Your task to perform on an android device: Check the news Image 0: 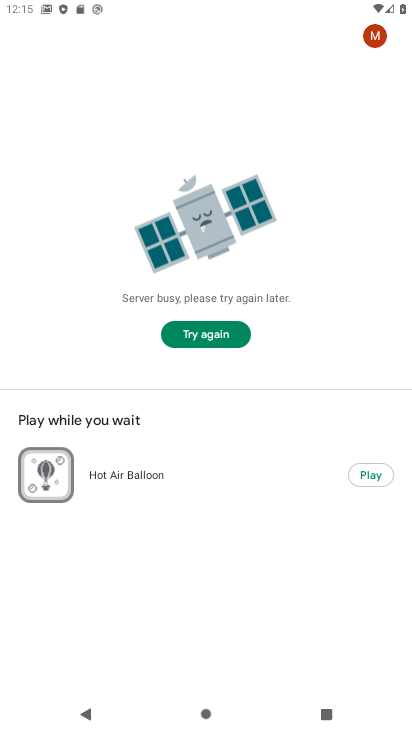
Step 0: press home button
Your task to perform on an android device: Check the news Image 1: 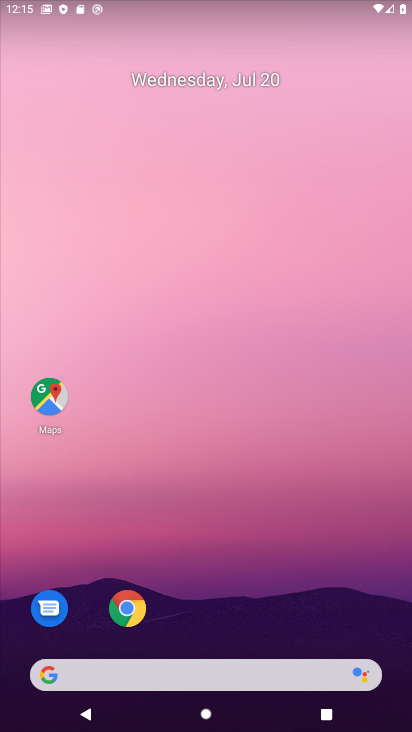
Step 1: drag from (180, 643) to (165, 229)
Your task to perform on an android device: Check the news Image 2: 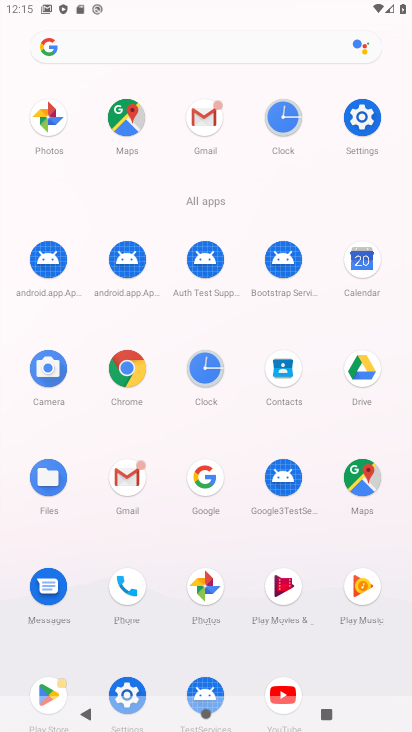
Step 2: click (199, 481)
Your task to perform on an android device: Check the news Image 3: 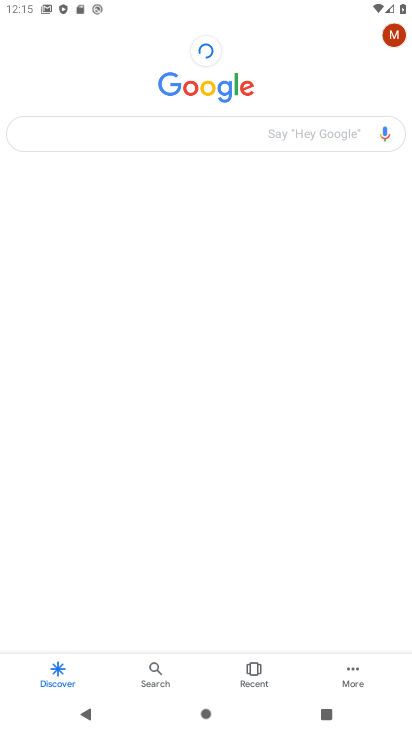
Step 3: click (95, 132)
Your task to perform on an android device: Check the news Image 4: 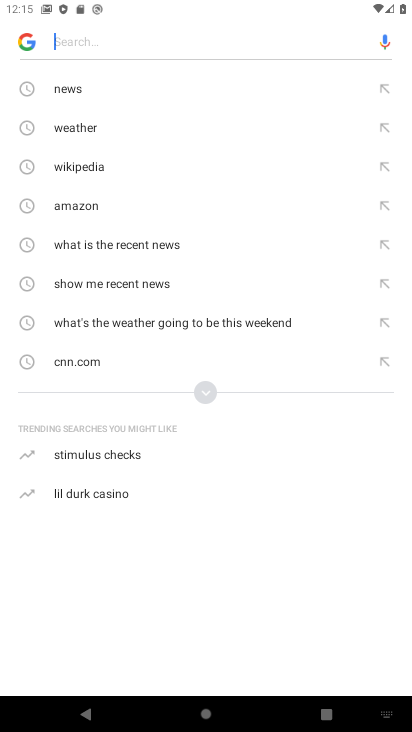
Step 4: click (65, 87)
Your task to perform on an android device: Check the news Image 5: 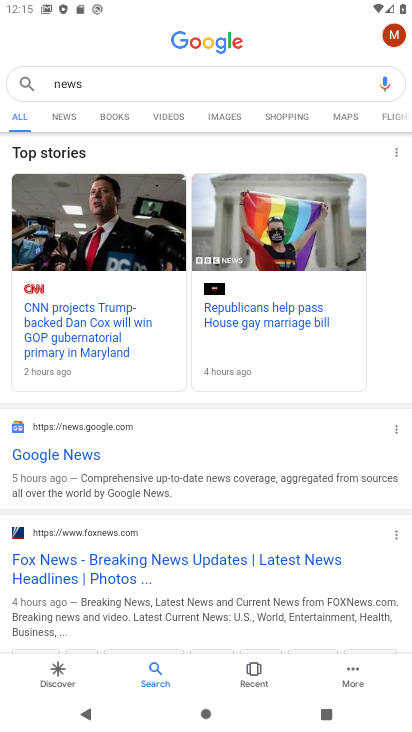
Step 5: drag from (199, 593) to (191, 192)
Your task to perform on an android device: Check the news Image 6: 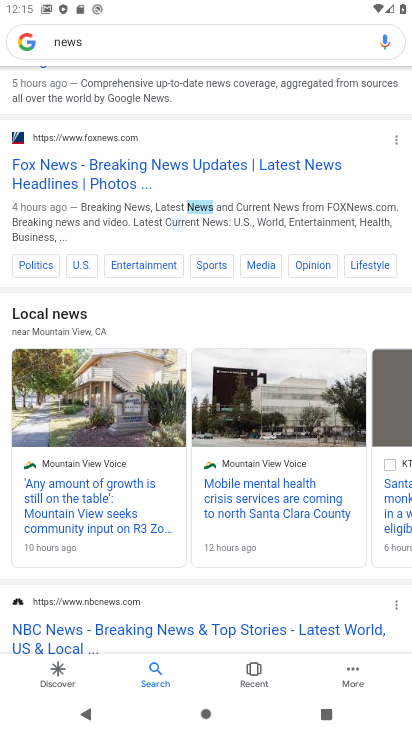
Step 6: click (71, 465)
Your task to perform on an android device: Check the news Image 7: 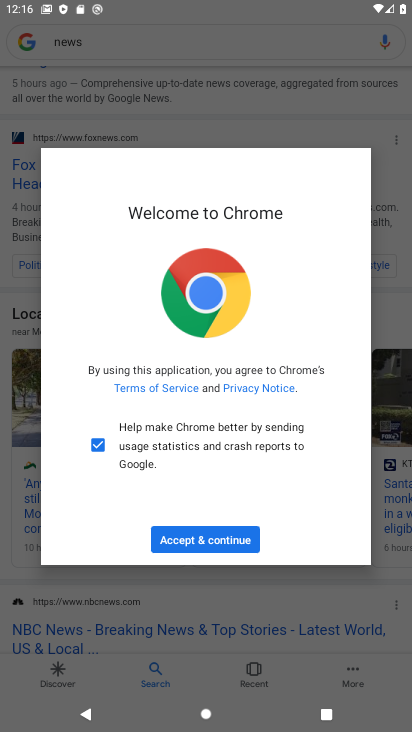
Step 7: task complete